Your task to perform on an android device: turn on the 24-hour format for clock Image 0: 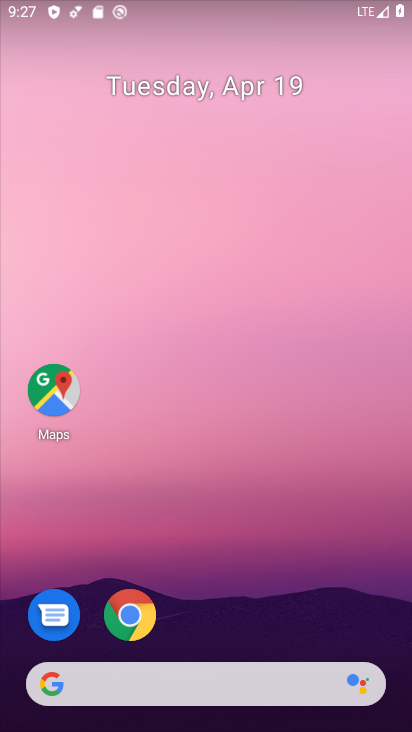
Step 0: drag from (280, 620) to (233, 68)
Your task to perform on an android device: turn on the 24-hour format for clock Image 1: 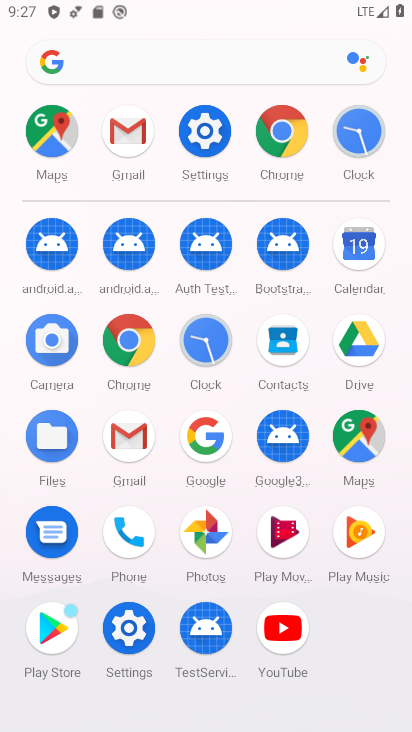
Step 1: click (208, 336)
Your task to perform on an android device: turn on the 24-hour format for clock Image 2: 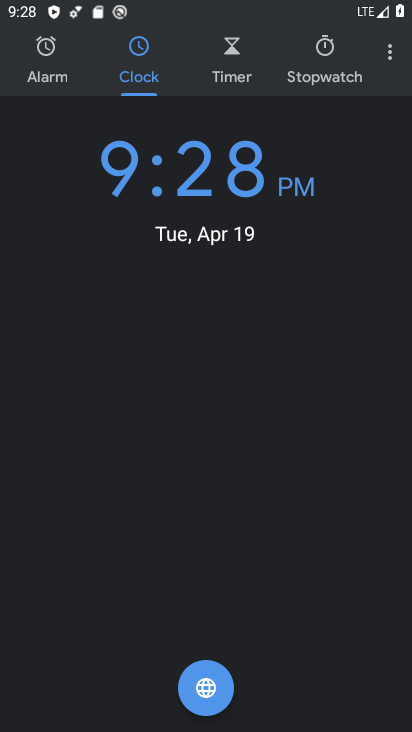
Step 2: click (385, 49)
Your task to perform on an android device: turn on the 24-hour format for clock Image 3: 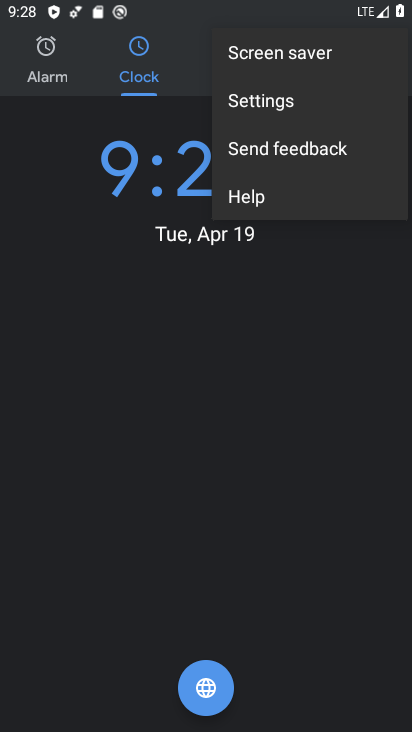
Step 3: click (282, 111)
Your task to perform on an android device: turn on the 24-hour format for clock Image 4: 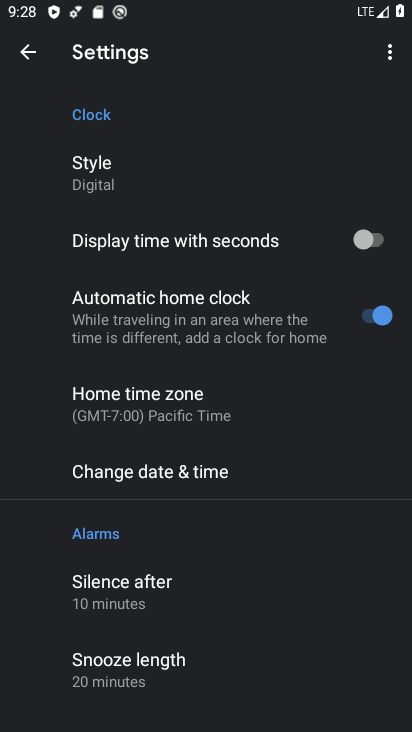
Step 4: drag from (212, 613) to (211, 124)
Your task to perform on an android device: turn on the 24-hour format for clock Image 5: 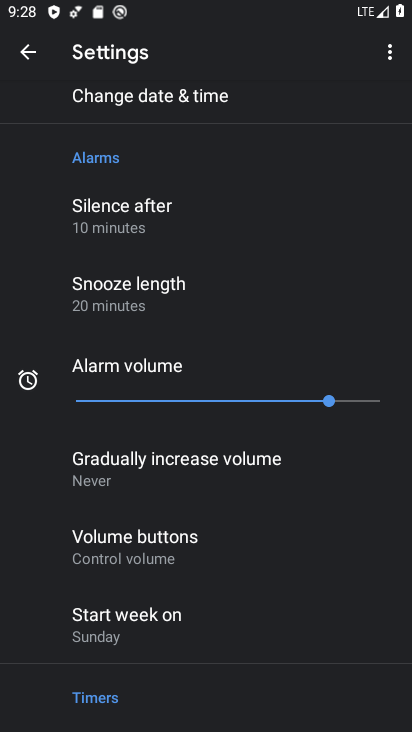
Step 5: drag from (207, 568) to (173, 60)
Your task to perform on an android device: turn on the 24-hour format for clock Image 6: 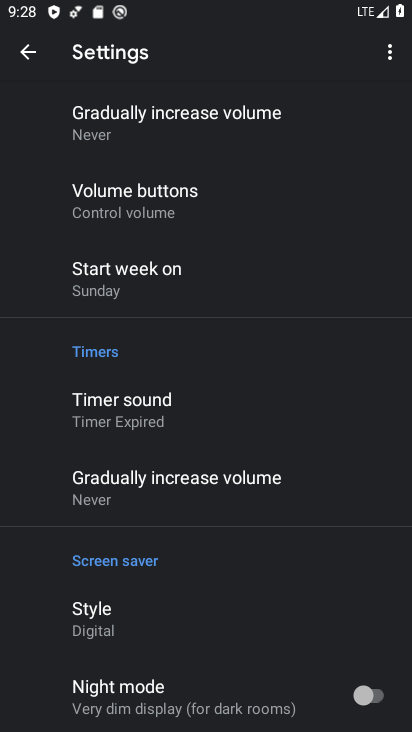
Step 6: drag from (145, 652) to (188, 112)
Your task to perform on an android device: turn on the 24-hour format for clock Image 7: 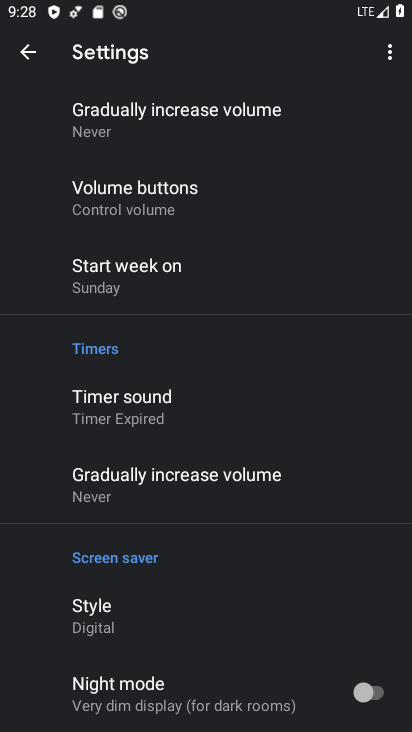
Step 7: drag from (229, 150) to (222, 626)
Your task to perform on an android device: turn on the 24-hour format for clock Image 8: 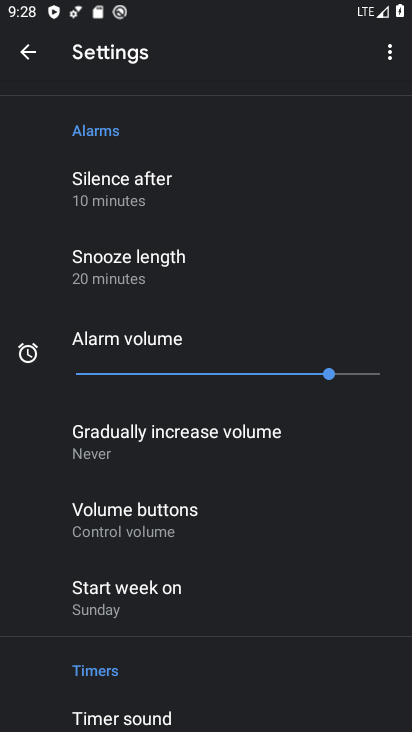
Step 8: drag from (192, 175) to (196, 656)
Your task to perform on an android device: turn on the 24-hour format for clock Image 9: 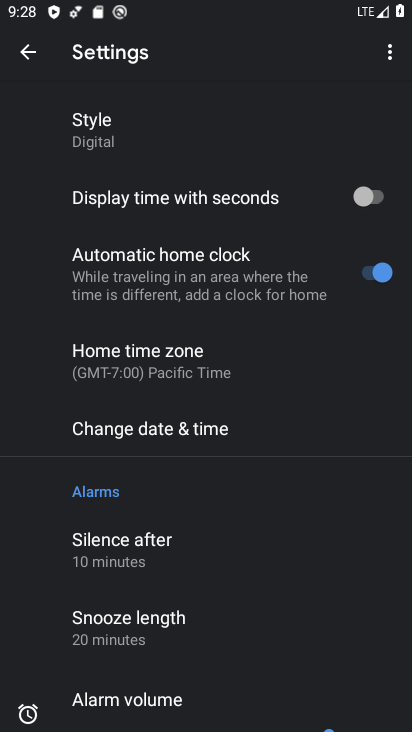
Step 9: click (214, 427)
Your task to perform on an android device: turn on the 24-hour format for clock Image 10: 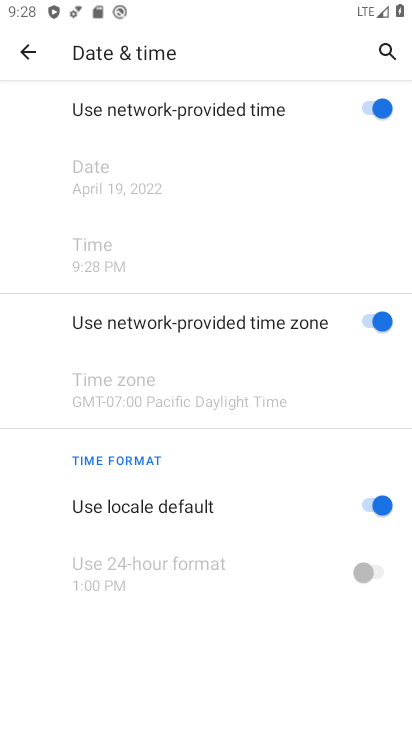
Step 10: click (384, 508)
Your task to perform on an android device: turn on the 24-hour format for clock Image 11: 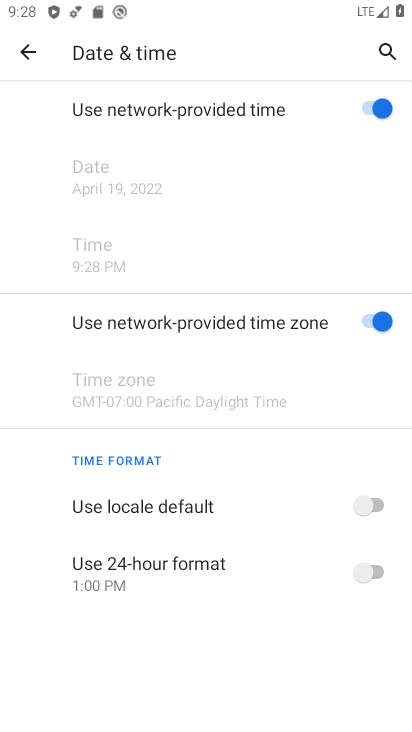
Step 11: click (380, 574)
Your task to perform on an android device: turn on the 24-hour format for clock Image 12: 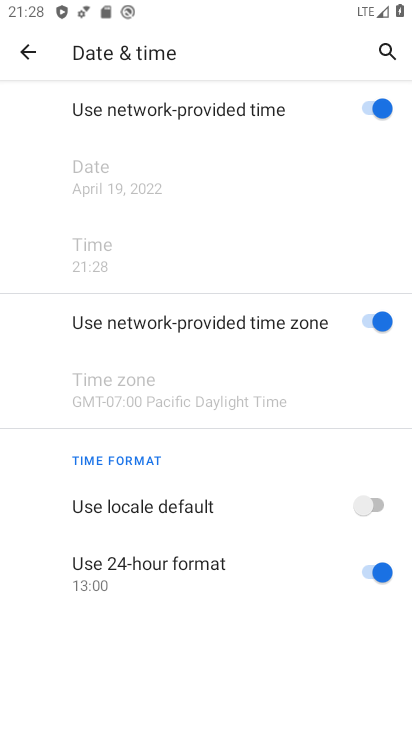
Step 12: task complete